Your task to perform on an android device: turn on the 12-hour format for clock Image 0: 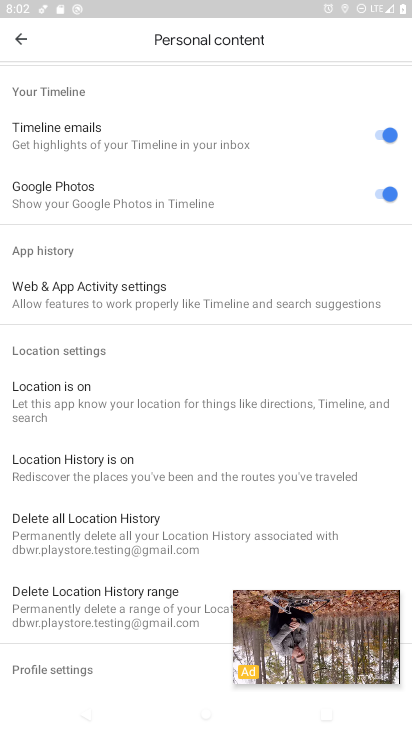
Step 0: click (358, 604)
Your task to perform on an android device: turn on the 12-hour format for clock Image 1: 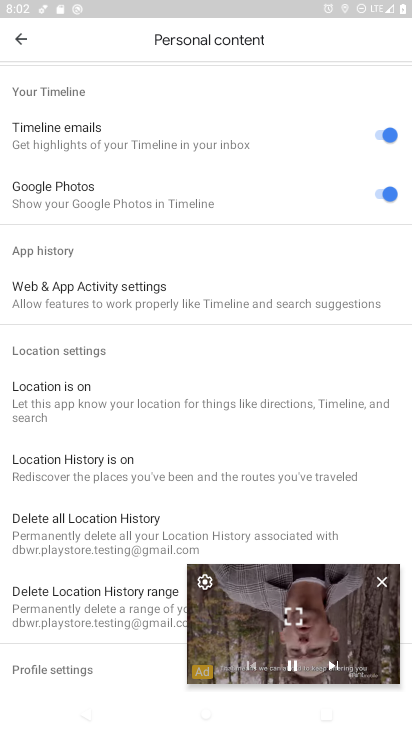
Step 1: click (378, 584)
Your task to perform on an android device: turn on the 12-hour format for clock Image 2: 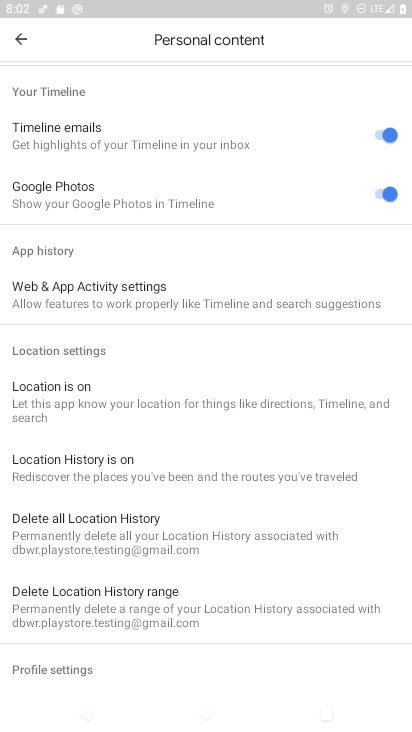
Step 2: press home button
Your task to perform on an android device: turn on the 12-hour format for clock Image 3: 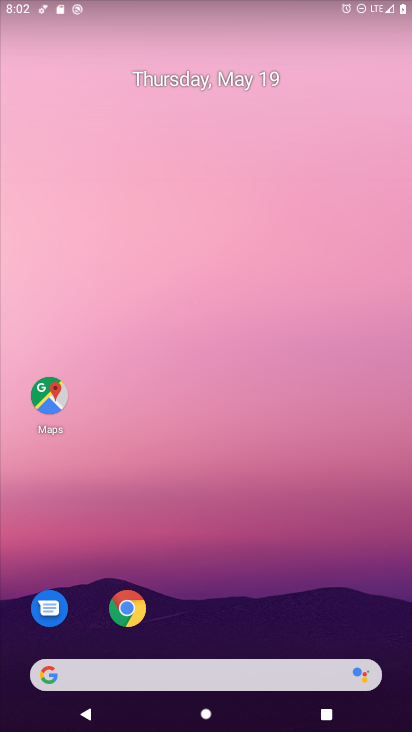
Step 3: drag from (394, 659) to (370, 152)
Your task to perform on an android device: turn on the 12-hour format for clock Image 4: 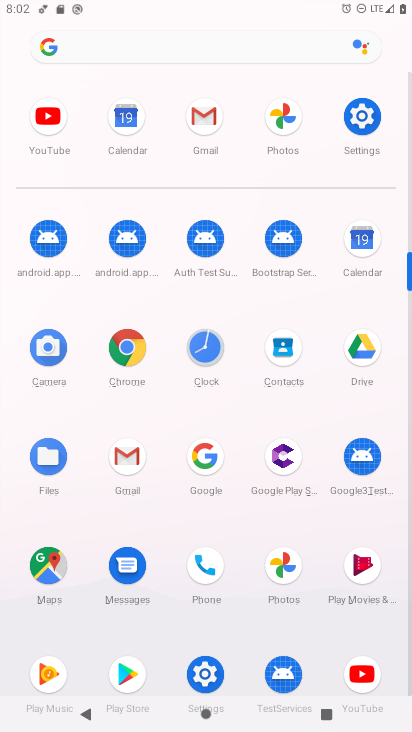
Step 4: click (197, 354)
Your task to perform on an android device: turn on the 12-hour format for clock Image 5: 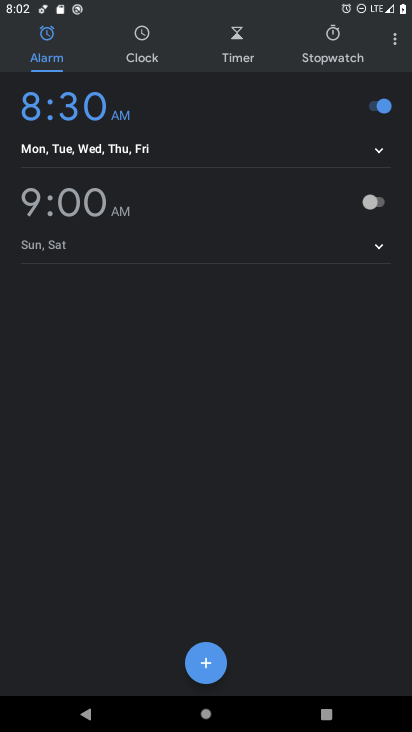
Step 5: click (394, 39)
Your task to perform on an android device: turn on the 12-hour format for clock Image 6: 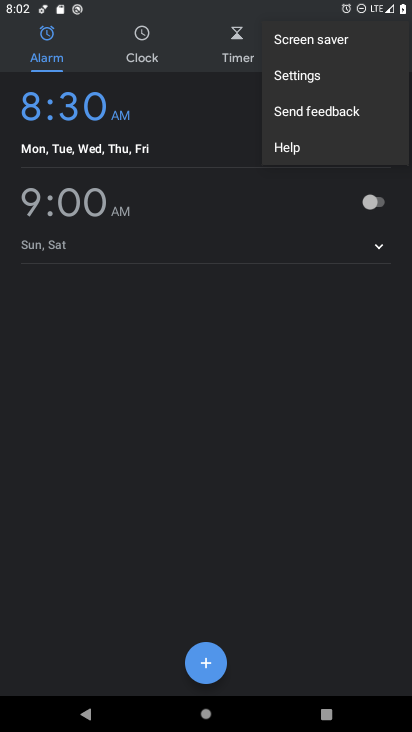
Step 6: click (305, 77)
Your task to perform on an android device: turn on the 12-hour format for clock Image 7: 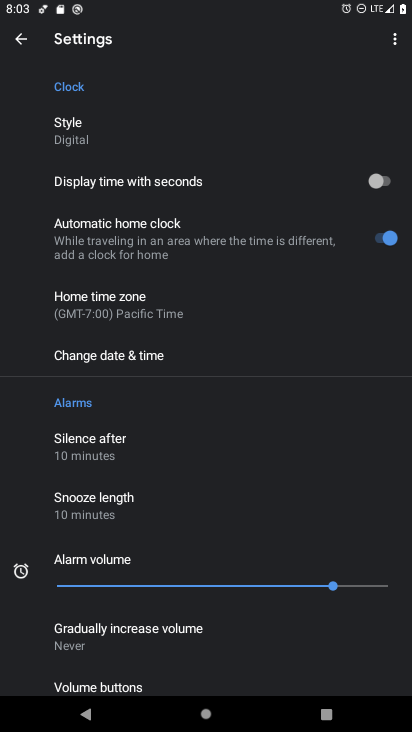
Step 7: click (138, 355)
Your task to perform on an android device: turn on the 12-hour format for clock Image 8: 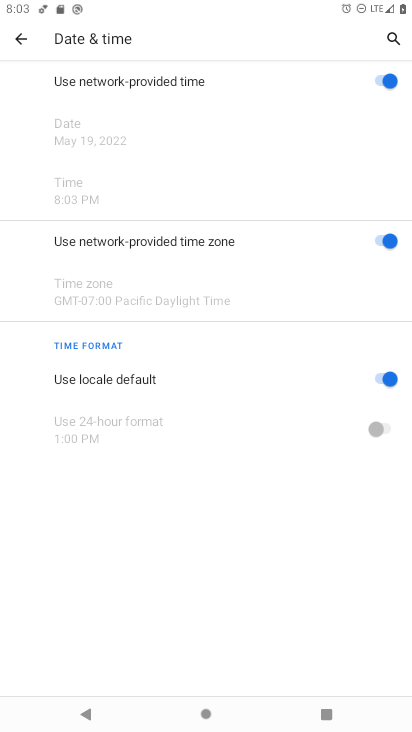
Step 8: task complete